Your task to perform on an android device: How big is the sun? Image 0: 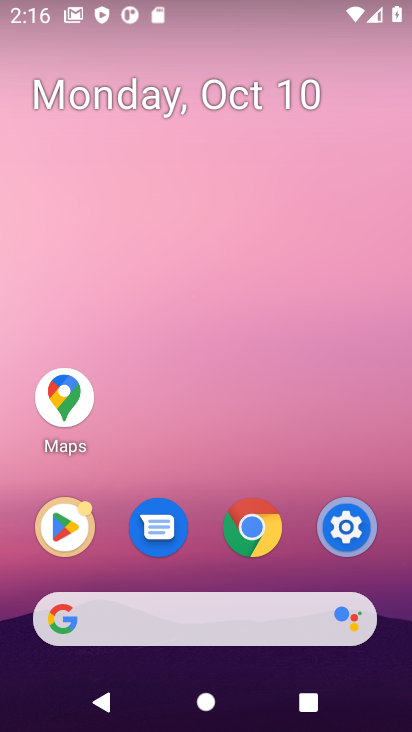
Step 0: press home button
Your task to perform on an android device: How big is the sun? Image 1: 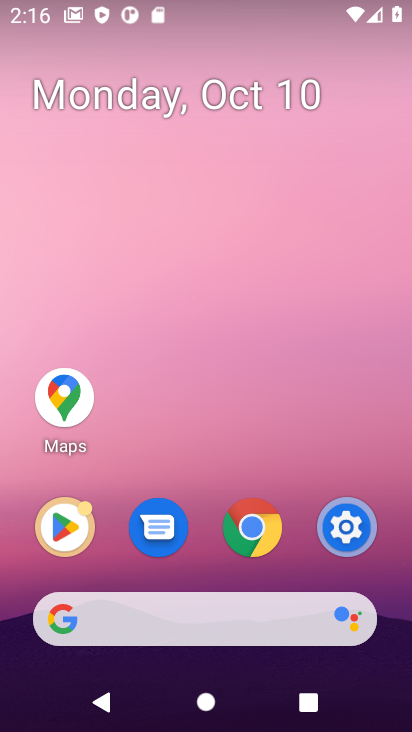
Step 1: click (196, 611)
Your task to perform on an android device: How big is the sun? Image 2: 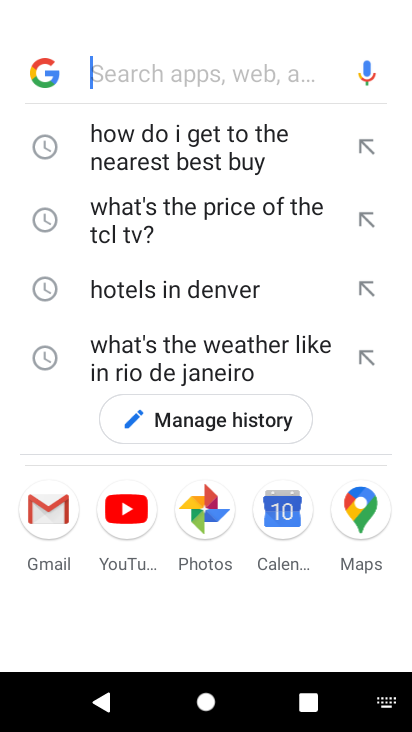
Step 2: press enter
Your task to perform on an android device: How big is the sun? Image 3: 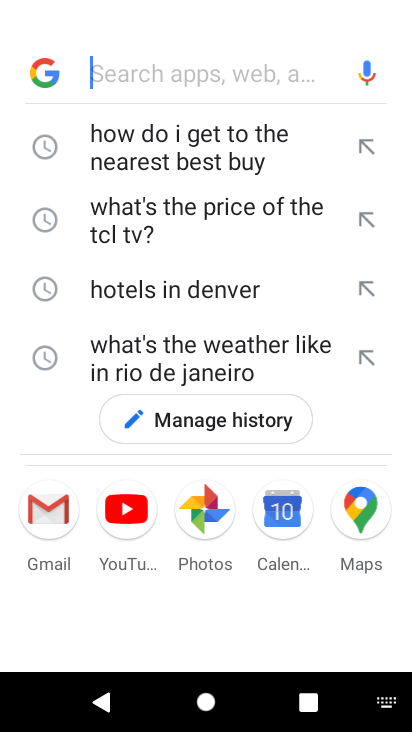
Step 3: type "How big is the sun?"
Your task to perform on an android device: How big is the sun? Image 4: 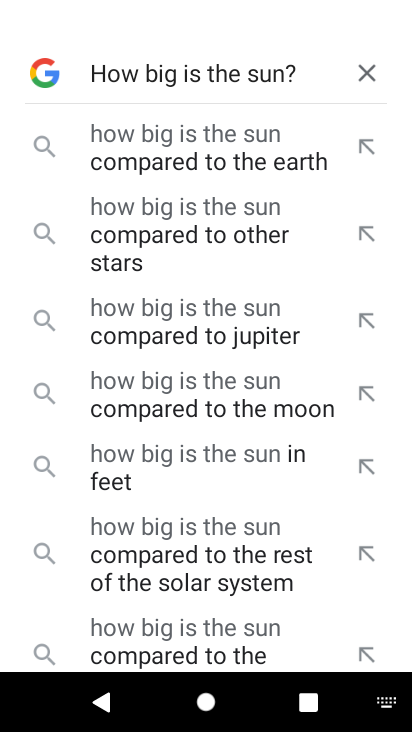
Step 4: press enter
Your task to perform on an android device: How big is the sun? Image 5: 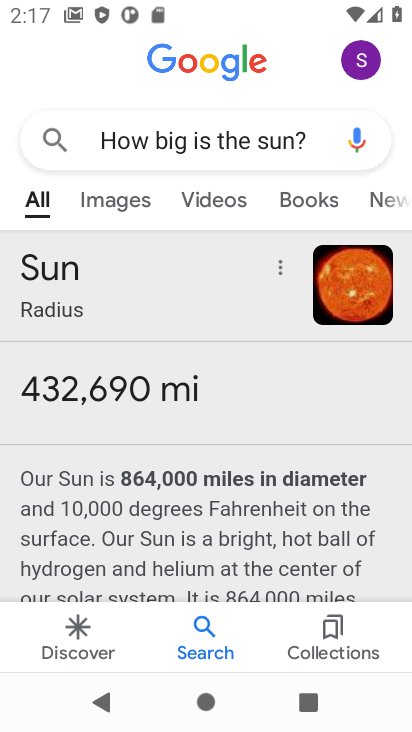
Step 5: task complete